Your task to perform on an android device: Open Yahoo.com Image 0: 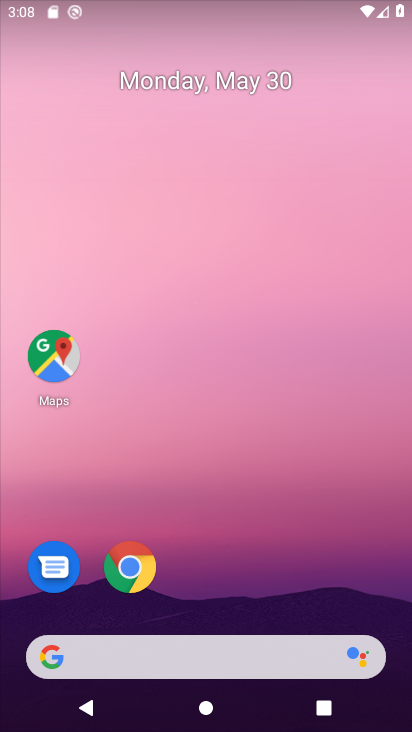
Step 0: drag from (190, 630) to (241, 1)
Your task to perform on an android device: Open Yahoo.com Image 1: 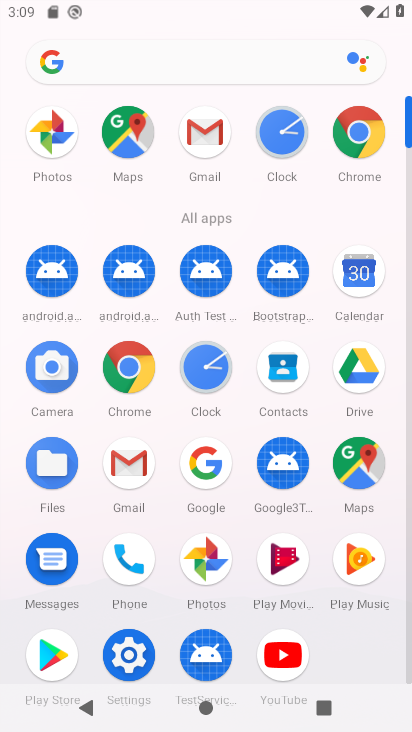
Step 1: click (136, 366)
Your task to perform on an android device: Open Yahoo.com Image 2: 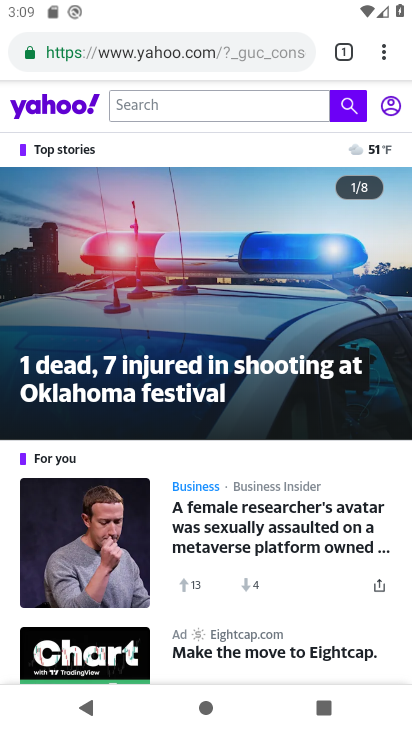
Step 2: task complete